Your task to perform on an android device: turn on showing notifications on the lock screen Image 0: 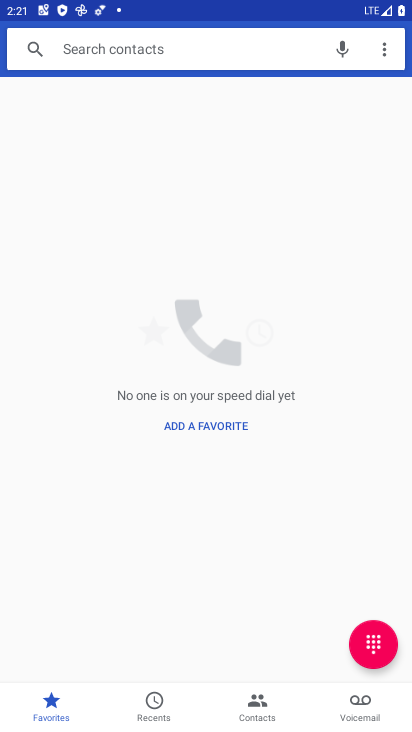
Step 0: press home button
Your task to perform on an android device: turn on showing notifications on the lock screen Image 1: 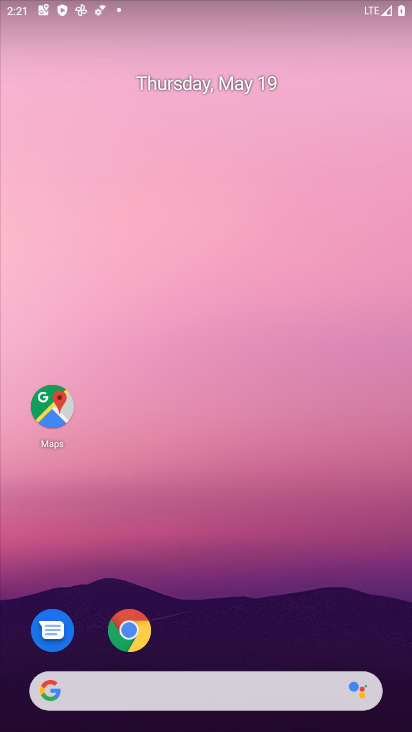
Step 1: drag from (387, 631) to (328, 75)
Your task to perform on an android device: turn on showing notifications on the lock screen Image 2: 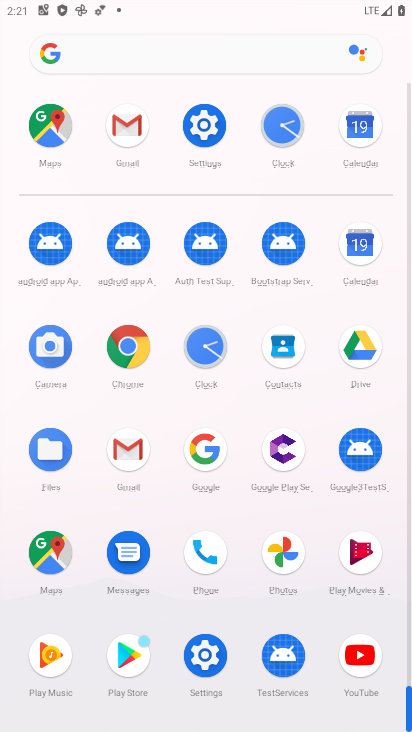
Step 2: click (206, 656)
Your task to perform on an android device: turn on showing notifications on the lock screen Image 3: 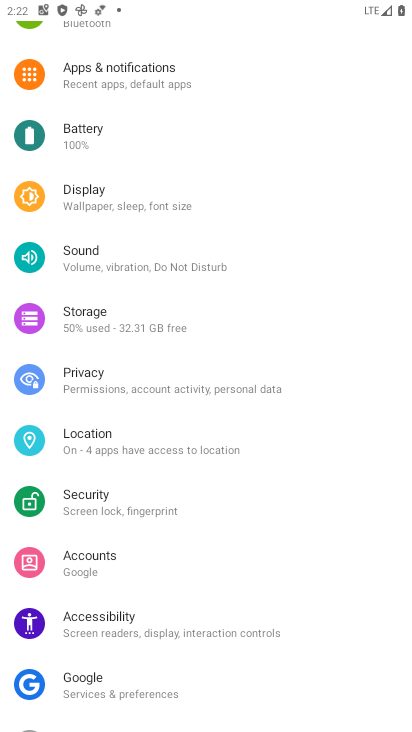
Step 3: click (99, 74)
Your task to perform on an android device: turn on showing notifications on the lock screen Image 4: 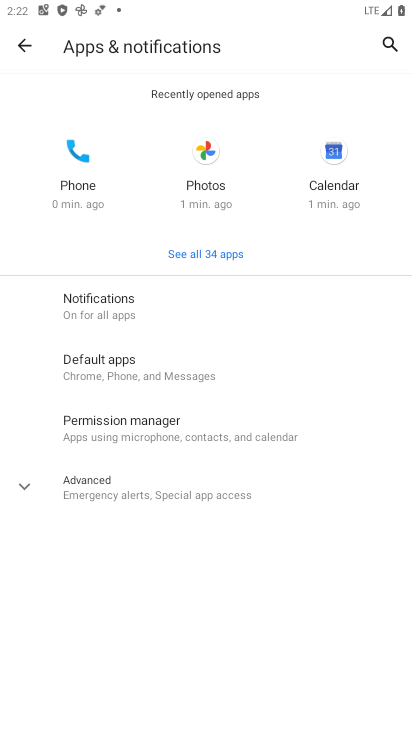
Step 4: click (102, 293)
Your task to perform on an android device: turn on showing notifications on the lock screen Image 5: 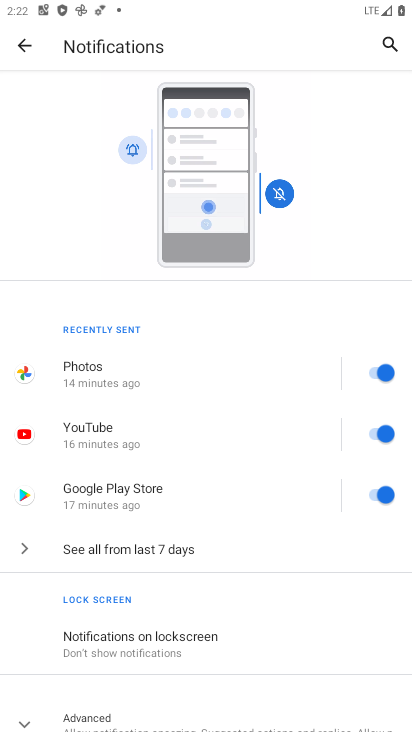
Step 5: drag from (328, 668) to (321, 185)
Your task to perform on an android device: turn on showing notifications on the lock screen Image 6: 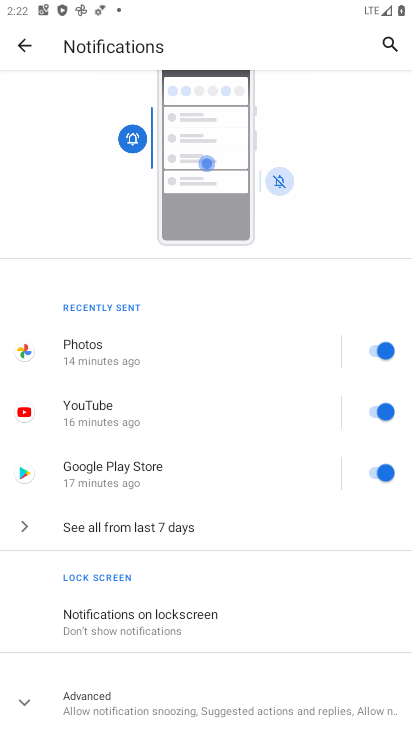
Step 6: click (97, 617)
Your task to perform on an android device: turn on showing notifications on the lock screen Image 7: 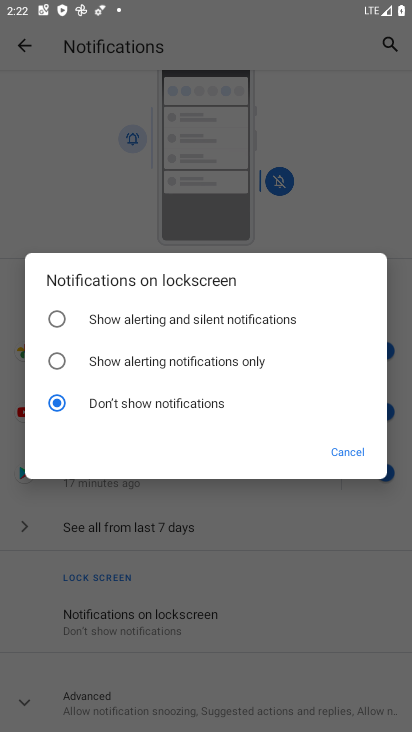
Step 7: click (57, 316)
Your task to perform on an android device: turn on showing notifications on the lock screen Image 8: 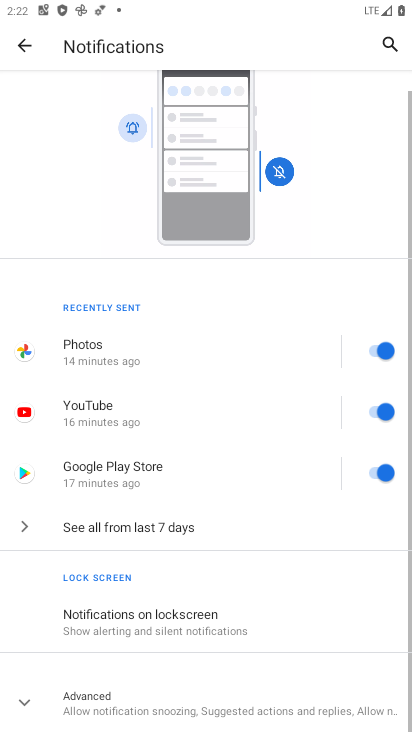
Step 8: task complete